Your task to perform on an android device: Play the last video I watched on Youtube Image 0: 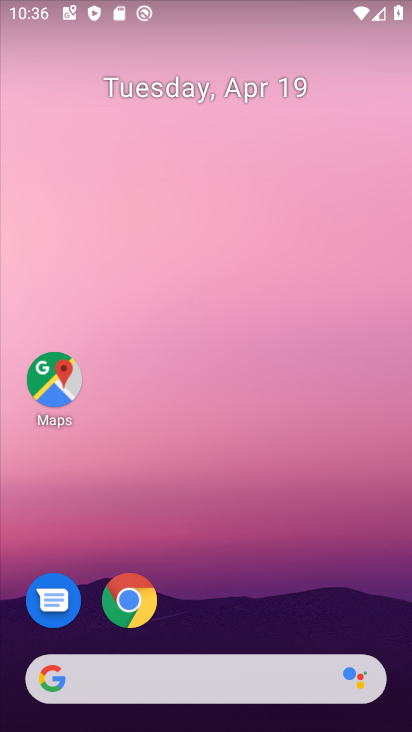
Step 0: drag from (226, 554) to (292, 16)
Your task to perform on an android device: Play the last video I watched on Youtube Image 1: 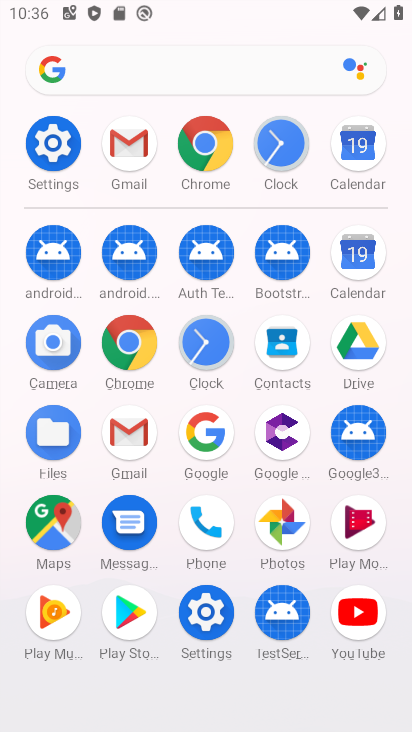
Step 1: click (355, 614)
Your task to perform on an android device: Play the last video I watched on Youtube Image 2: 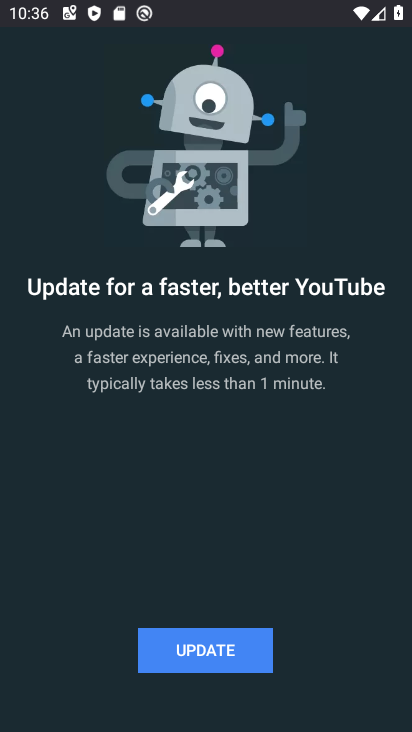
Step 2: click (220, 653)
Your task to perform on an android device: Play the last video I watched on Youtube Image 3: 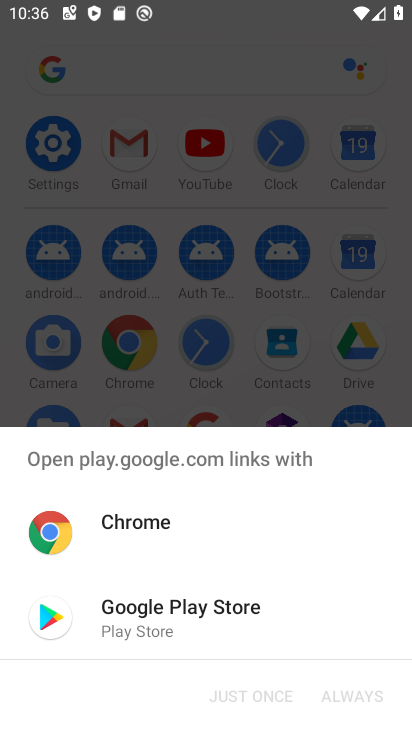
Step 3: click (159, 610)
Your task to perform on an android device: Play the last video I watched on Youtube Image 4: 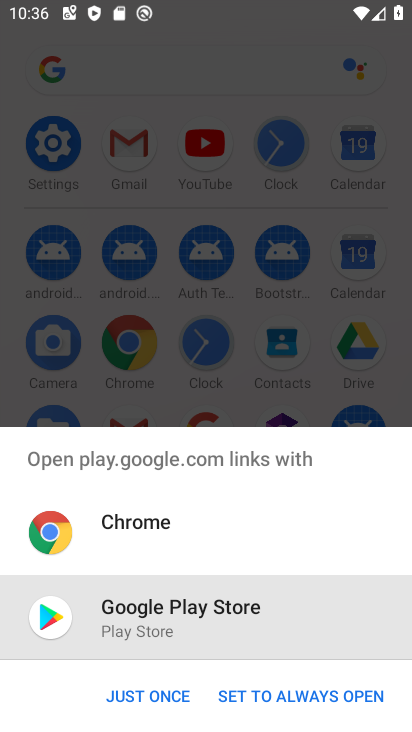
Step 4: click (156, 699)
Your task to perform on an android device: Play the last video I watched on Youtube Image 5: 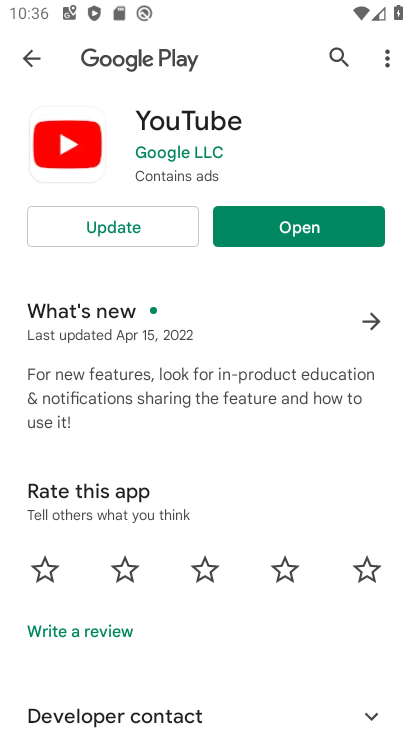
Step 5: click (153, 229)
Your task to perform on an android device: Play the last video I watched on Youtube Image 6: 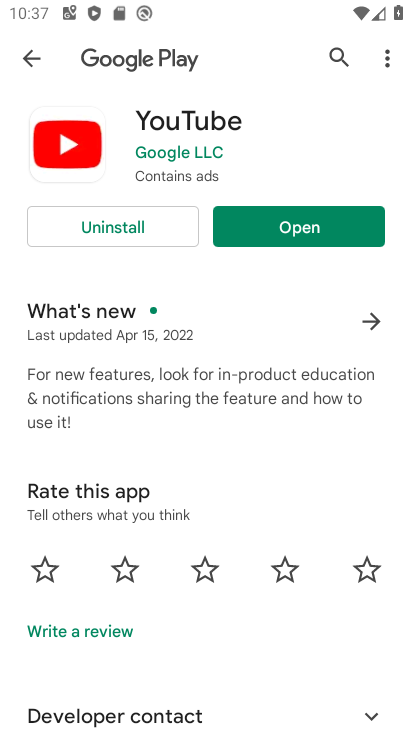
Step 6: click (354, 232)
Your task to perform on an android device: Play the last video I watched on Youtube Image 7: 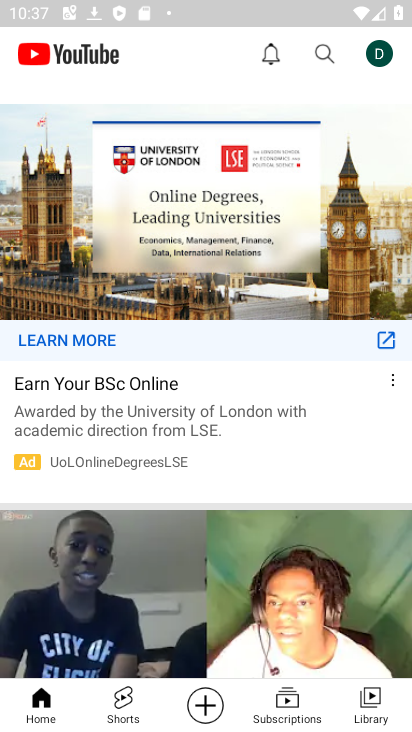
Step 7: click (369, 708)
Your task to perform on an android device: Play the last video I watched on Youtube Image 8: 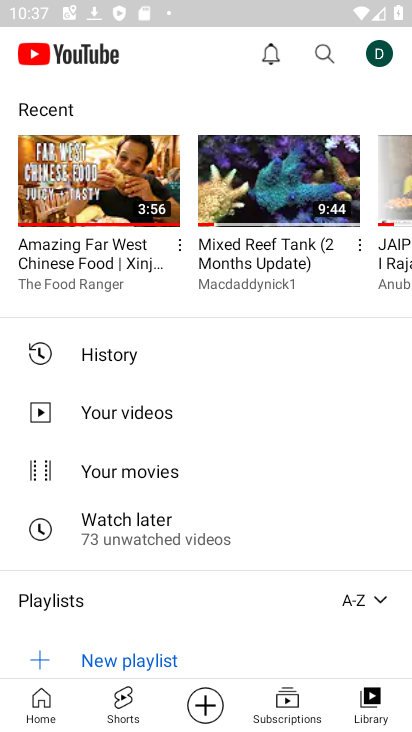
Step 8: click (115, 185)
Your task to perform on an android device: Play the last video I watched on Youtube Image 9: 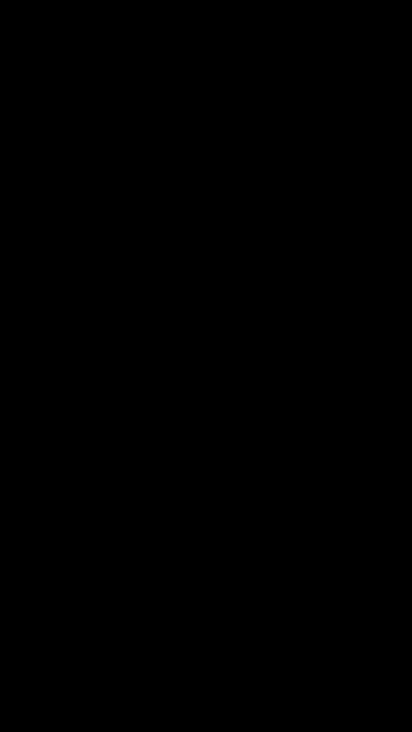
Step 9: task complete